Your task to perform on an android device: Open the Play Movies app and select the watchlist tab. Image 0: 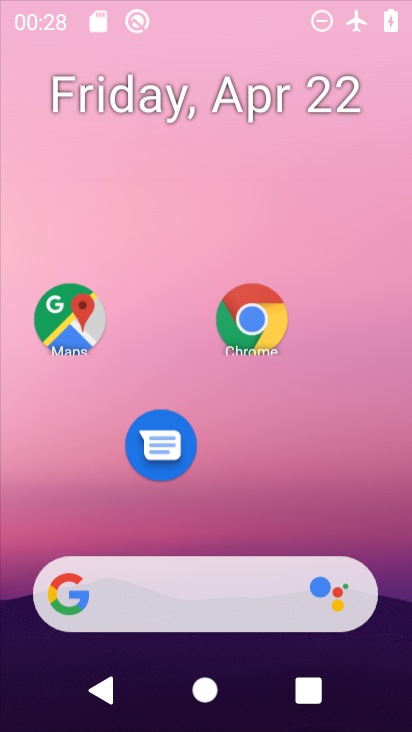
Step 0: drag from (268, 153) to (208, 171)
Your task to perform on an android device: Open the Play Movies app and select the watchlist tab. Image 1: 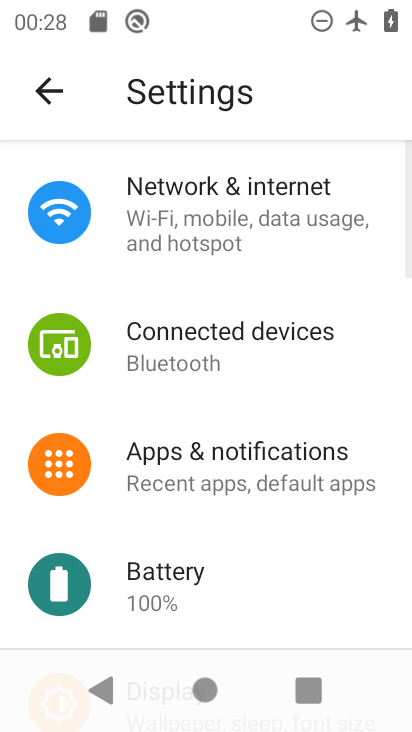
Step 1: press home button
Your task to perform on an android device: Open the Play Movies app and select the watchlist tab. Image 2: 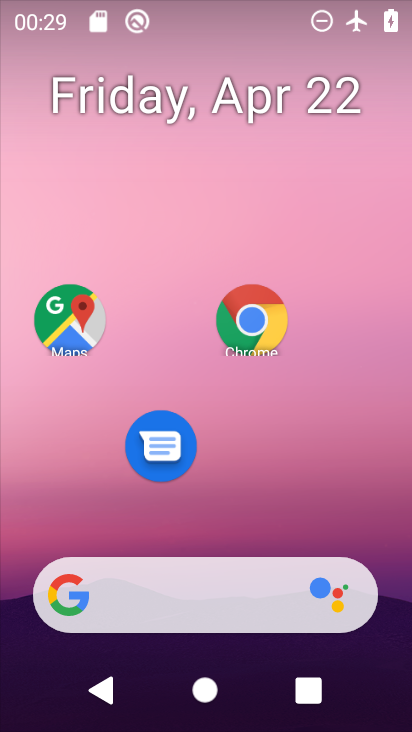
Step 2: drag from (200, 453) to (182, 204)
Your task to perform on an android device: Open the Play Movies app and select the watchlist tab. Image 3: 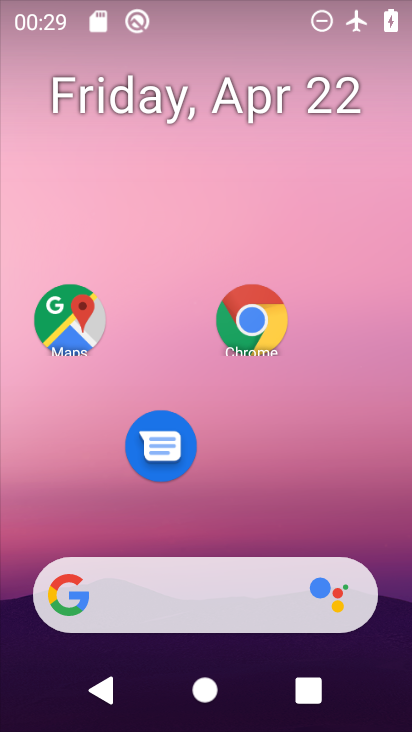
Step 3: drag from (193, 525) to (188, 209)
Your task to perform on an android device: Open the Play Movies app and select the watchlist tab. Image 4: 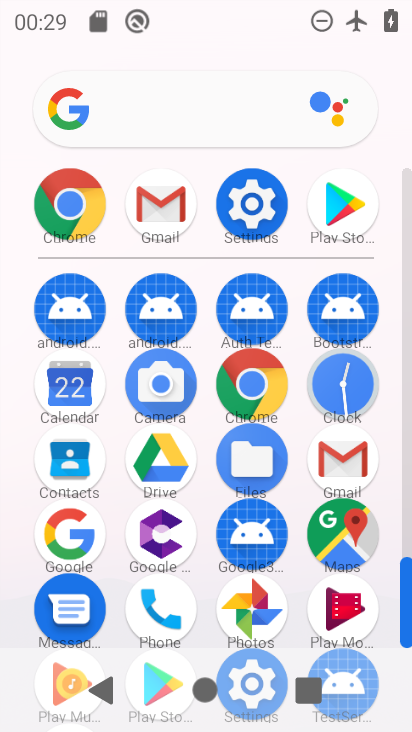
Step 4: drag from (196, 642) to (199, 254)
Your task to perform on an android device: Open the Play Movies app and select the watchlist tab. Image 5: 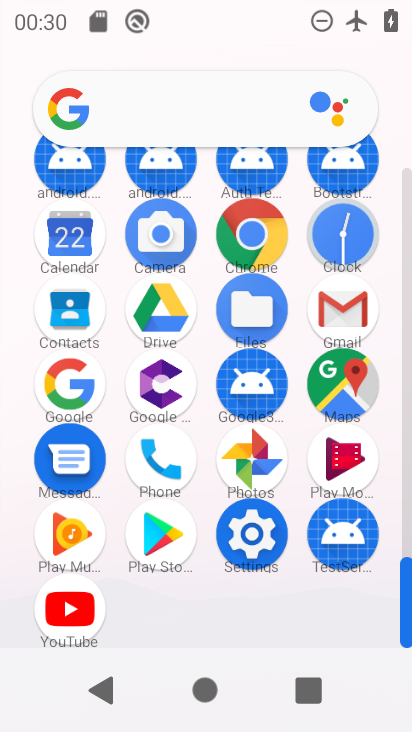
Step 5: drag from (201, 349) to (222, 78)
Your task to perform on an android device: Open the Play Movies app and select the watchlist tab. Image 6: 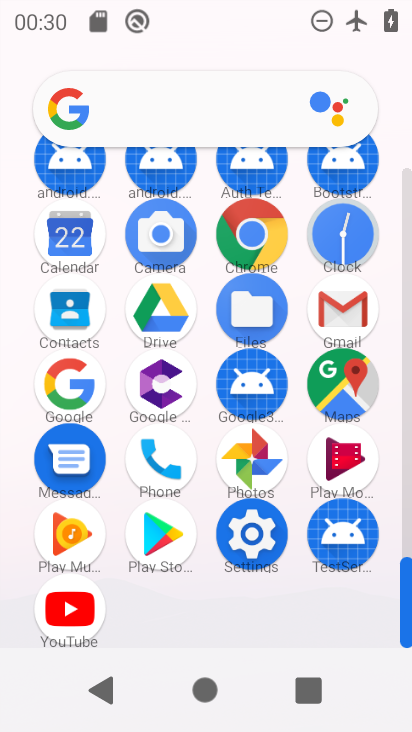
Step 6: click (349, 447)
Your task to perform on an android device: Open the Play Movies app and select the watchlist tab. Image 7: 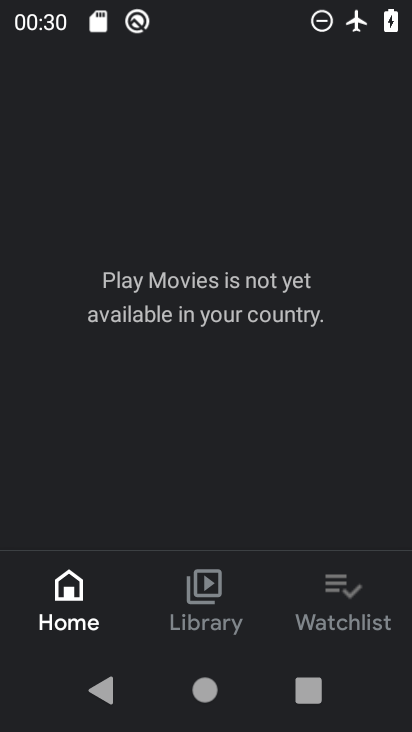
Step 7: click (345, 611)
Your task to perform on an android device: Open the Play Movies app and select the watchlist tab. Image 8: 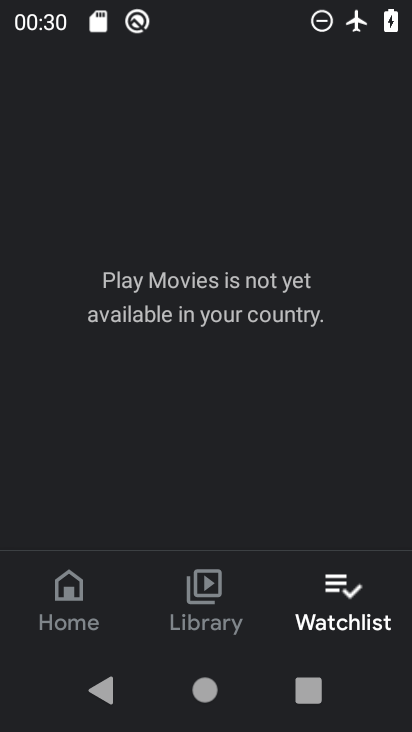
Step 8: task complete